Your task to perform on an android device: Go to battery settings Image 0: 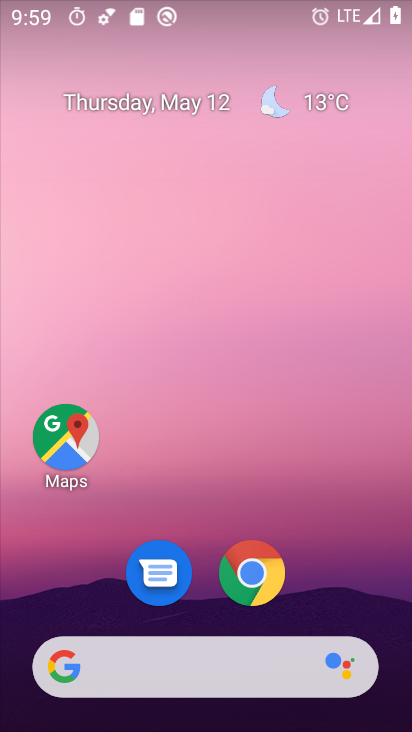
Step 0: click (347, 199)
Your task to perform on an android device: Go to battery settings Image 1: 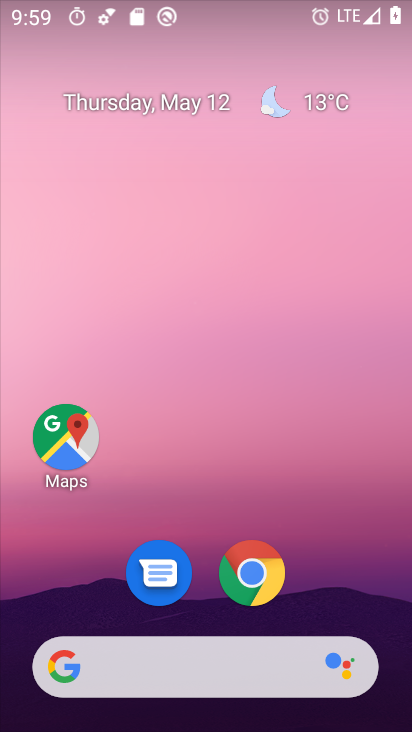
Step 1: drag from (399, 671) to (334, 127)
Your task to perform on an android device: Go to battery settings Image 2: 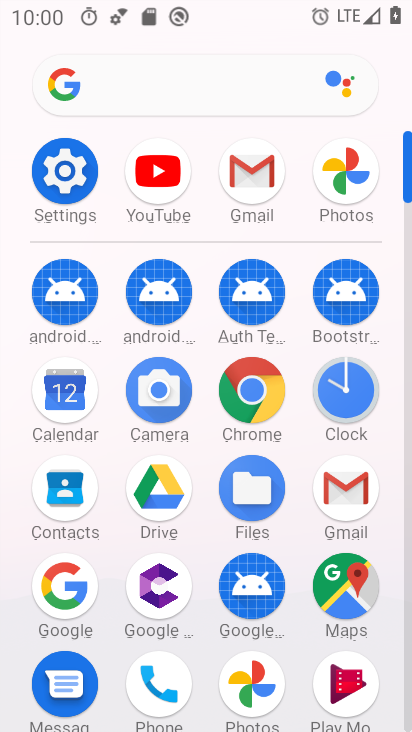
Step 2: click (75, 177)
Your task to perform on an android device: Go to battery settings Image 3: 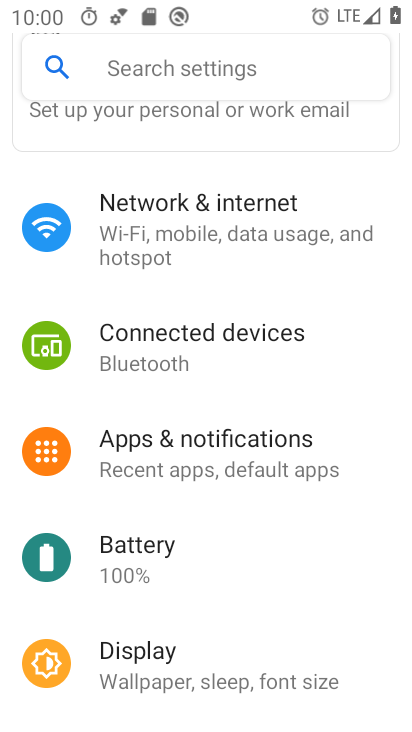
Step 3: click (116, 562)
Your task to perform on an android device: Go to battery settings Image 4: 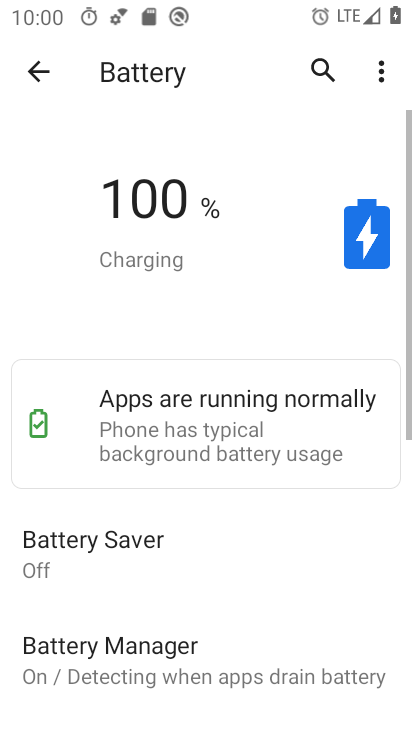
Step 4: task complete